Your task to perform on an android device: Go to display settings Image 0: 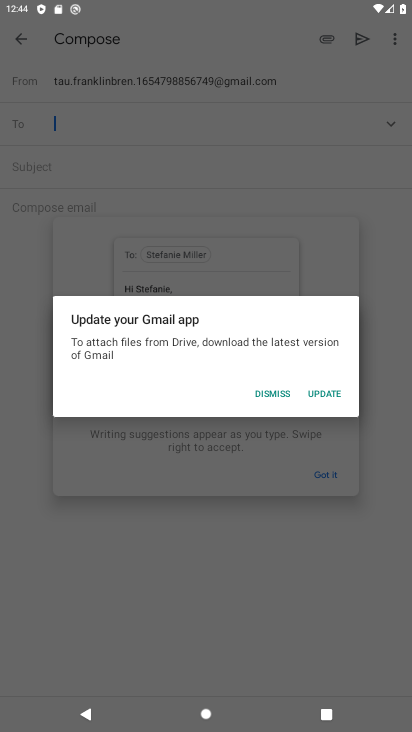
Step 0: press home button
Your task to perform on an android device: Go to display settings Image 1: 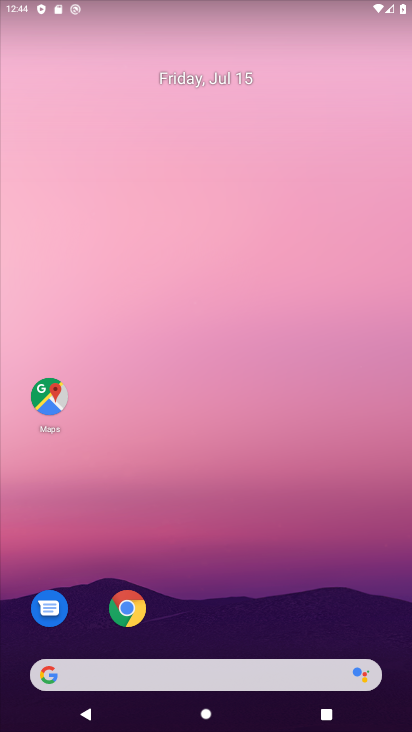
Step 1: drag from (178, 658) to (182, 311)
Your task to perform on an android device: Go to display settings Image 2: 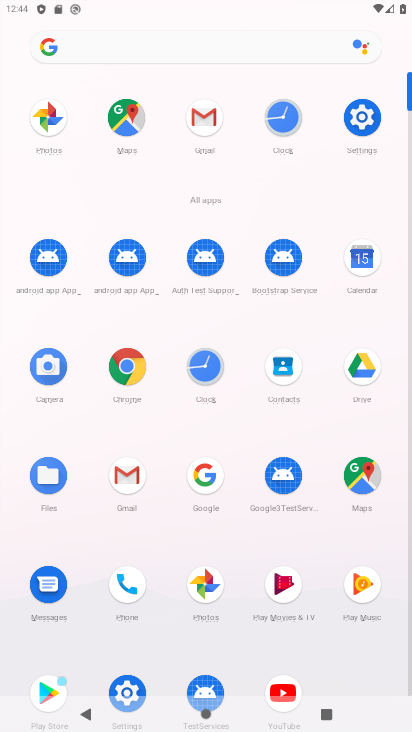
Step 2: click (353, 113)
Your task to perform on an android device: Go to display settings Image 3: 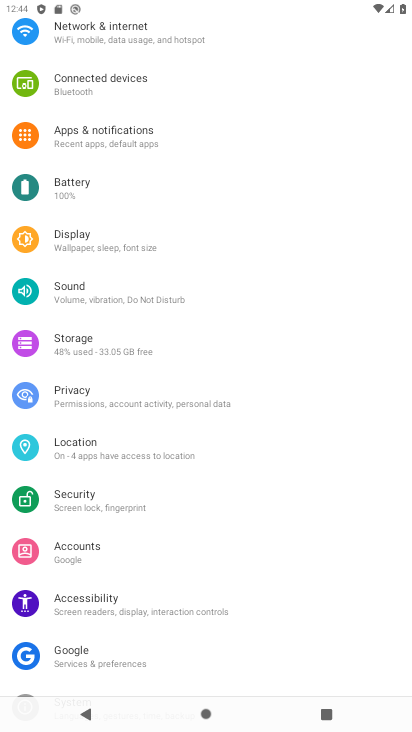
Step 3: click (72, 233)
Your task to perform on an android device: Go to display settings Image 4: 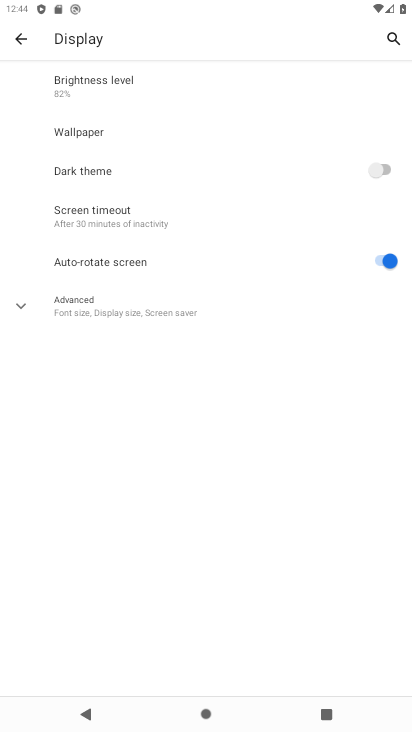
Step 4: click (59, 304)
Your task to perform on an android device: Go to display settings Image 5: 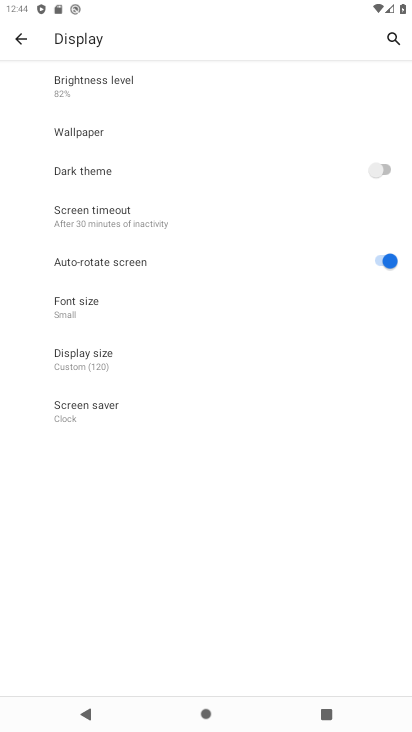
Step 5: task complete